Your task to perform on an android device: Open Google Maps Image 0: 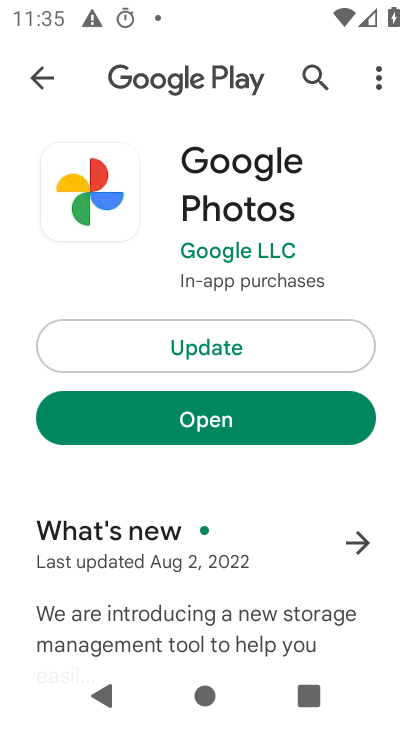
Step 0: press back button
Your task to perform on an android device: Open Google Maps Image 1: 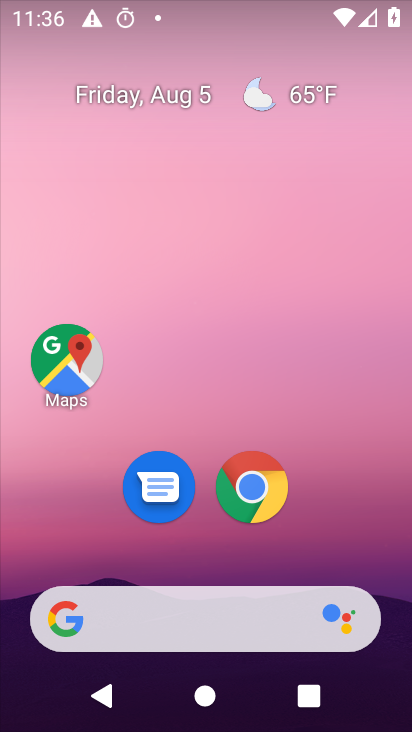
Step 1: click (61, 359)
Your task to perform on an android device: Open Google Maps Image 2: 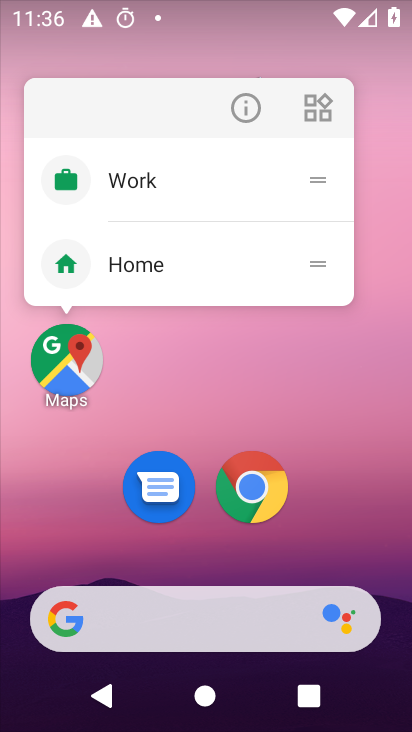
Step 2: click (72, 361)
Your task to perform on an android device: Open Google Maps Image 3: 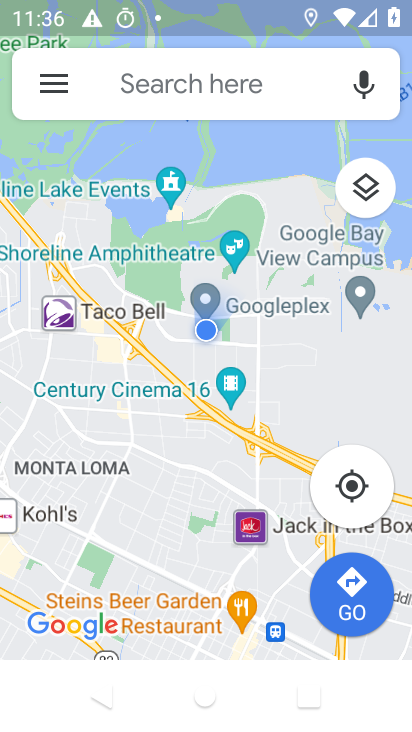
Step 3: task complete